Your task to perform on an android device: Open settings Image 0: 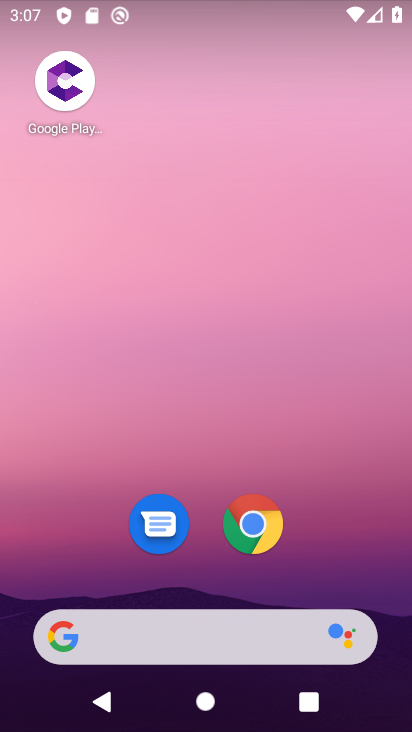
Step 0: drag from (240, 443) to (277, 22)
Your task to perform on an android device: Open settings Image 1: 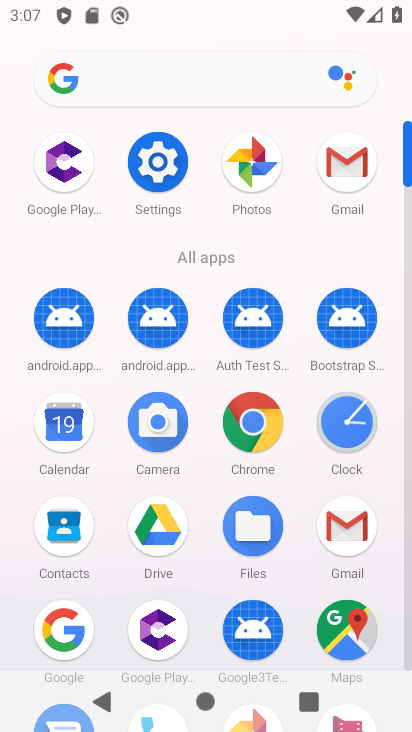
Step 1: click (170, 161)
Your task to perform on an android device: Open settings Image 2: 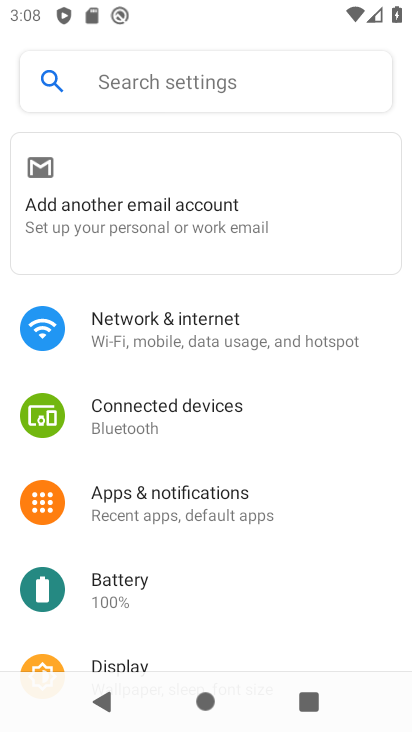
Step 2: task complete